Your task to perform on an android device: show emergency info Image 0: 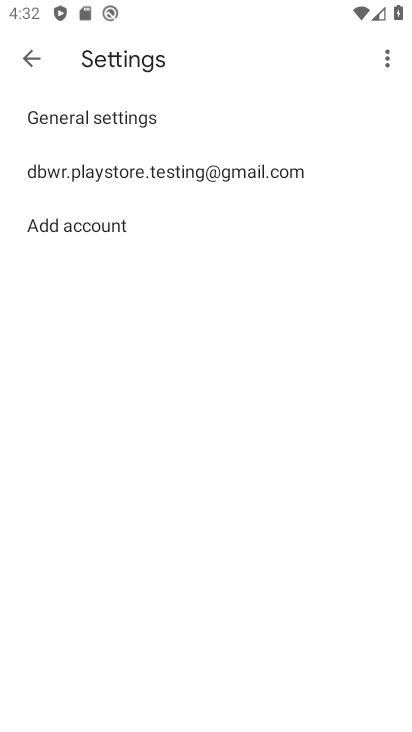
Step 0: press home button
Your task to perform on an android device: show emergency info Image 1: 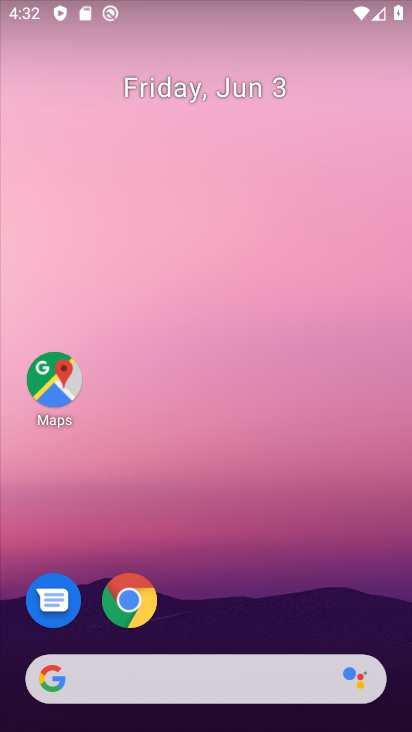
Step 1: drag from (220, 585) to (298, 32)
Your task to perform on an android device: show emergency info Image 2: 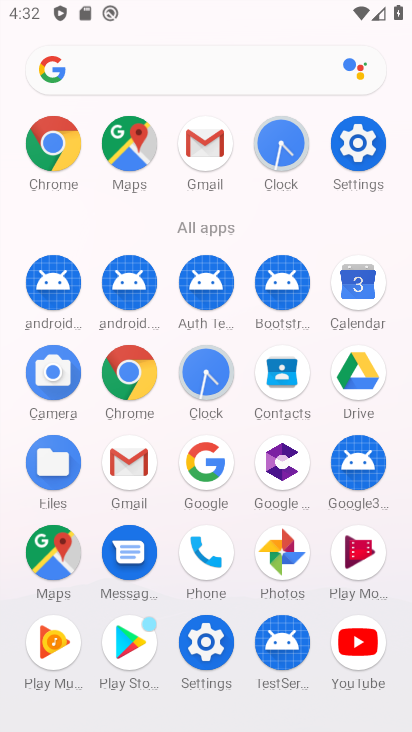
Step 2: click (364, 167)
Your task to perform on an android device: show emergency info Image 3: 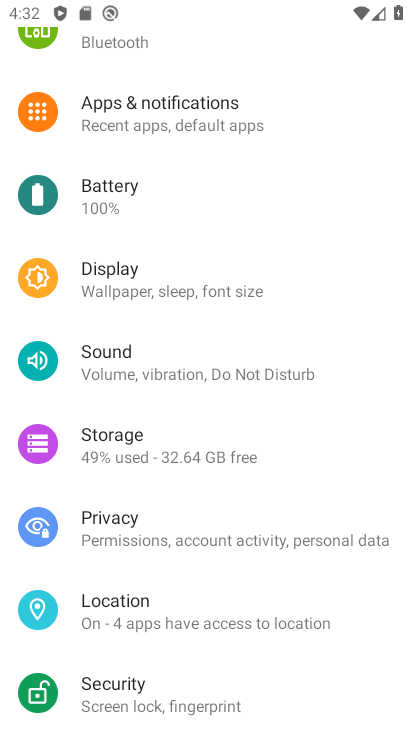
Step 3: drag from (208, 607) to (270, 137)
Your task to perform on an android device: show emergency info Image 4: 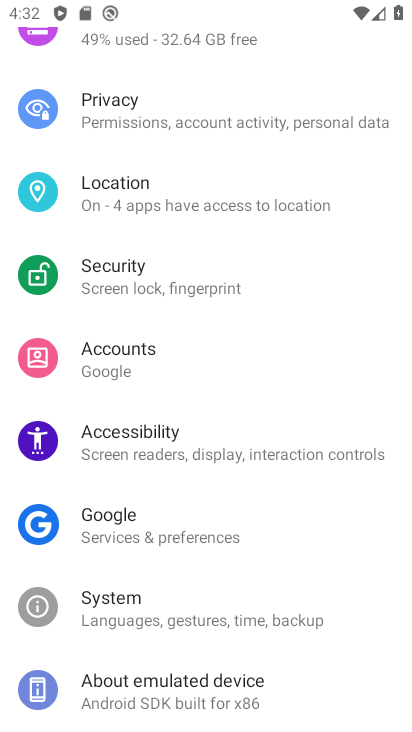
Step 4: drag from (156, 607) to (238, 238)
Your task to perform on an android device: show emergency info Image 5: 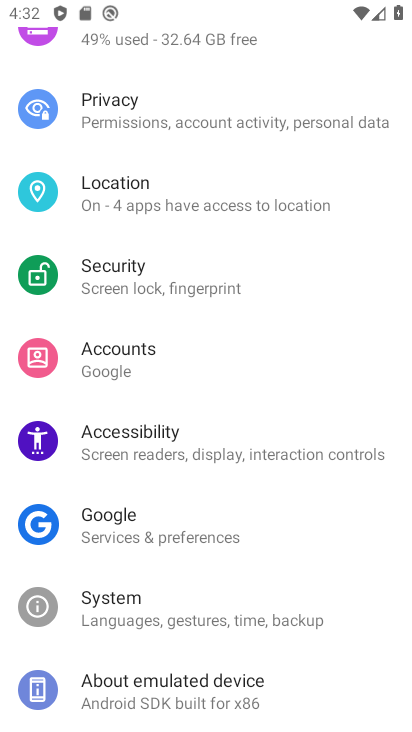
Step 5: click (148, 704)
Your task to perform on an android device: show emergency info Image 6: 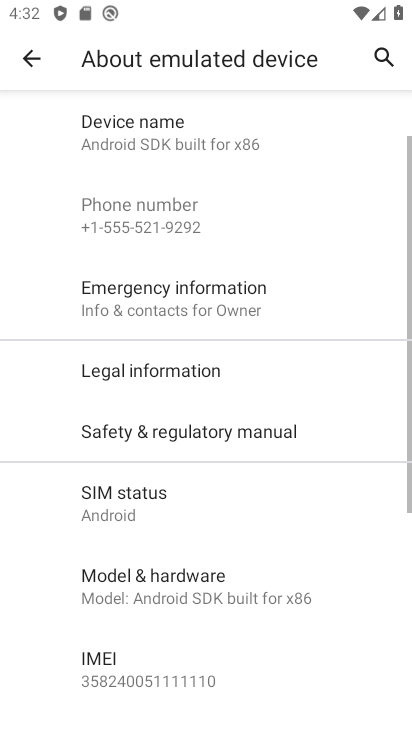
Step 6: click (222, 304)
Your task to perform on an android device: show emergency info Image 7: 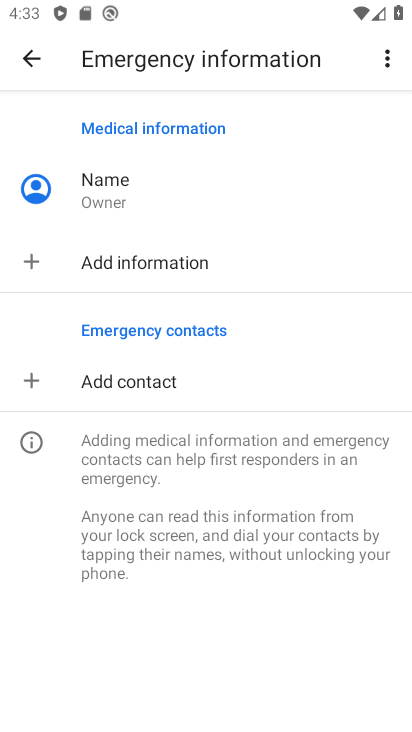
Step 7: task complete